Your task to perform on an android device: Open CNN.com Image 0: 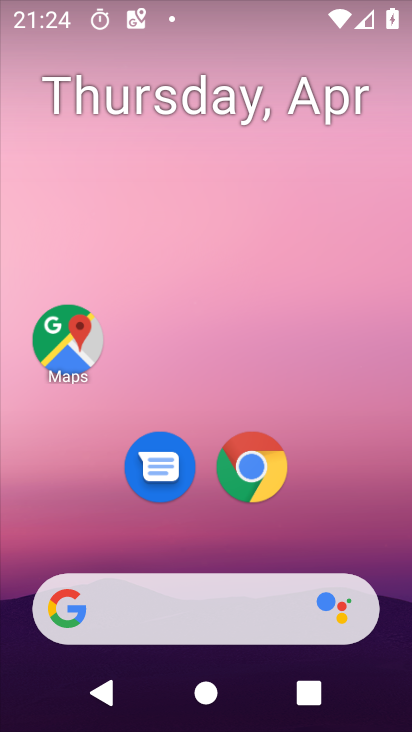
Step 0: drag from (198, 569) to (383, 395)
Your task to perform on an android device: Open CNN.com Image 1: 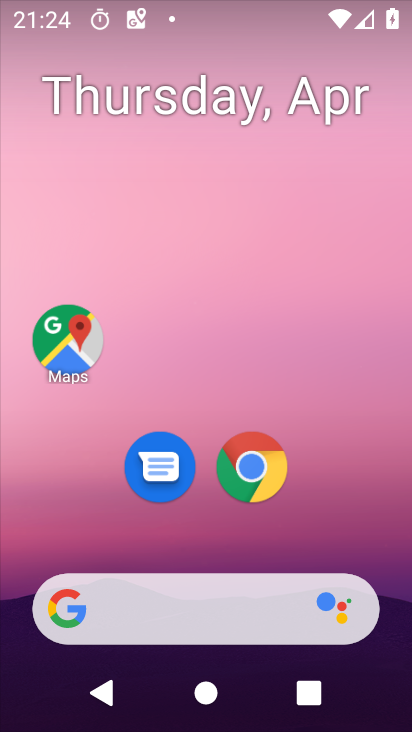
Step 1: drag from (260, 388) to (212, 6)
Your task to perform on an android device: Open CNN.com Image 2: 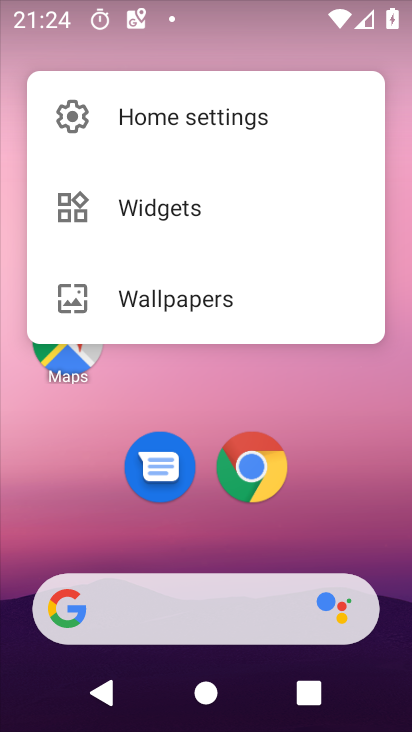
Step 2: click (186, 537)
Your task to perform on an android device: Open CNN.com Image 3: 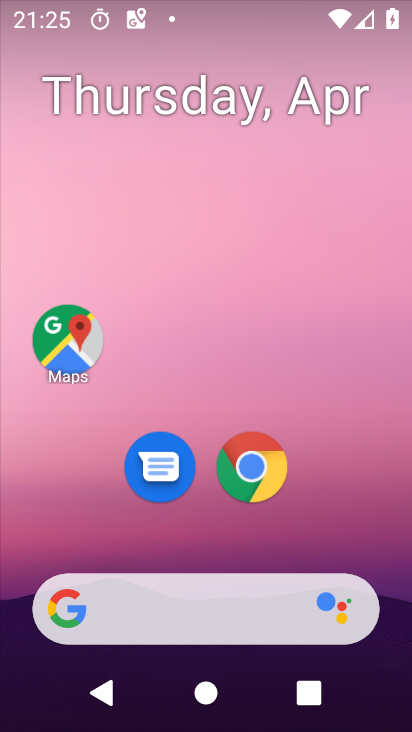
Step 3: drag from (213, 530) to (377, 586)
Your task to perform on an android device: Open CNN.com Image 4: 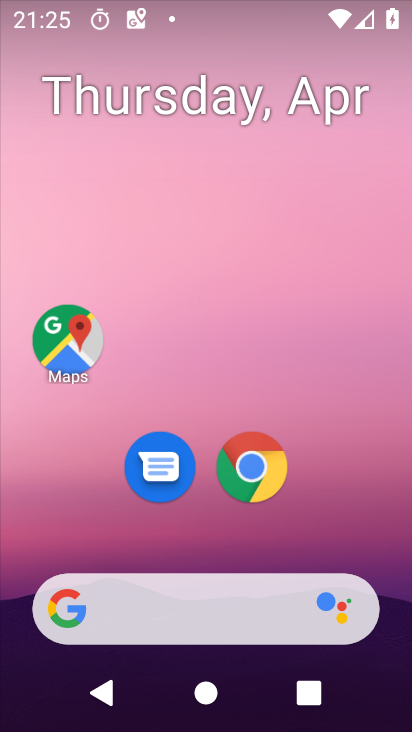
Step 4: click (263, 386)
Your task to perform on an android device: Open CNN.com Image 5: 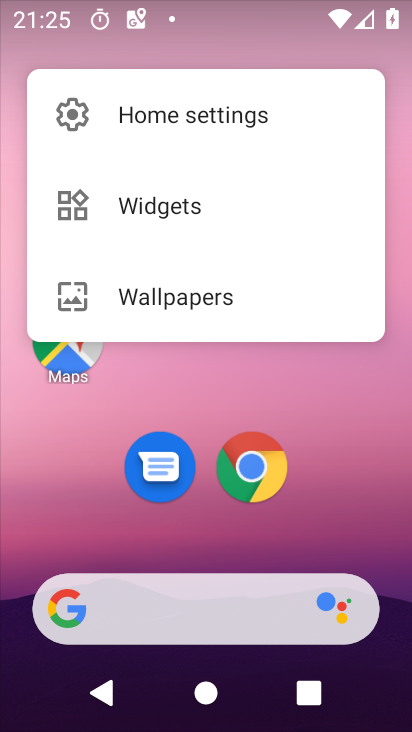
Step 5: drag from (249, 563) to (255, 22)
Your task to perform on an android device: Open CNN.com Image 6: 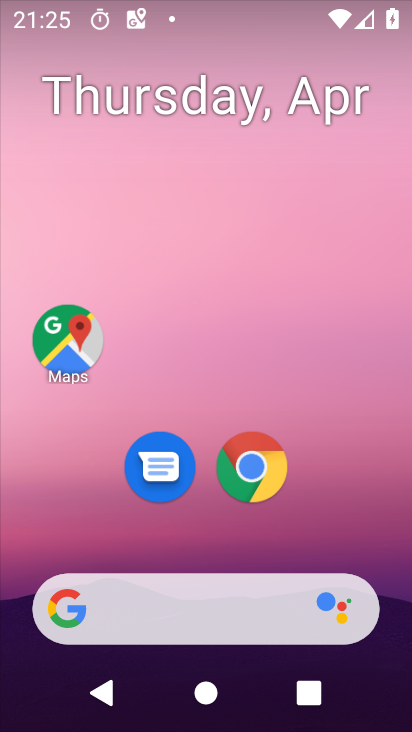
Step 6: drag from (197, 495) to (354, 49)
Your task to perform on an android device: Open CNN.com Image 7: 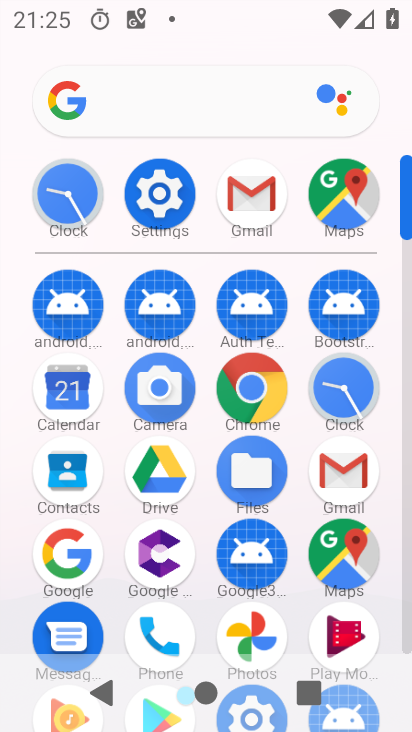
Step 7: click (246, 397)
Your task to perform on an android device: Open CNN.com Image 8: 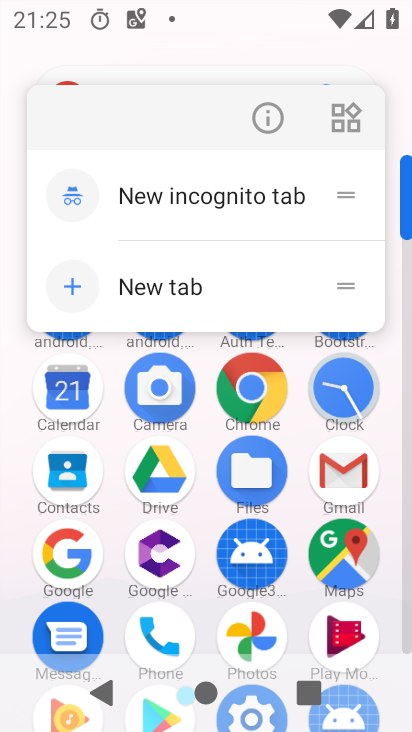
Step 8: click (258, 386)
Your task to perform on an android device: Open CNN.com Image 9: 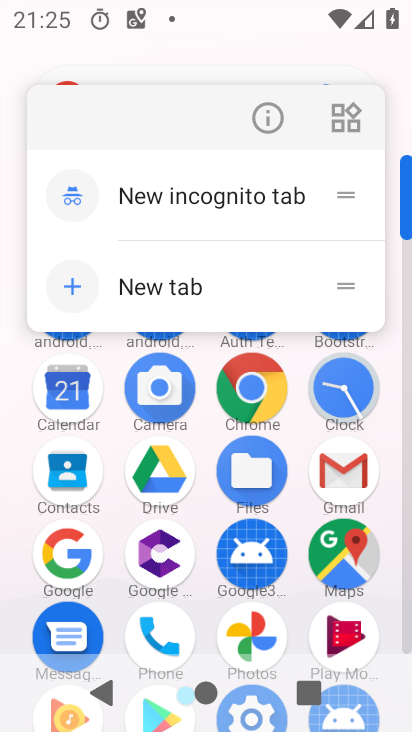
Step 9: click (259, 385)
Your task to perform on an android device: Open CNN.com Image 10: 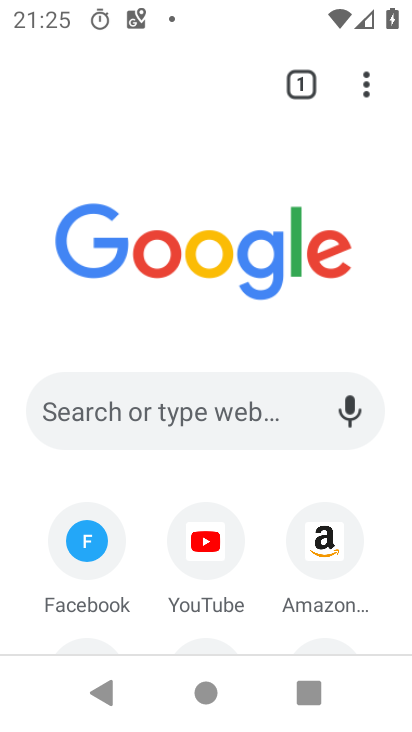
Step 10: click (215, 433)
Your task to perform on an android device: Open CNN.com Image 11: 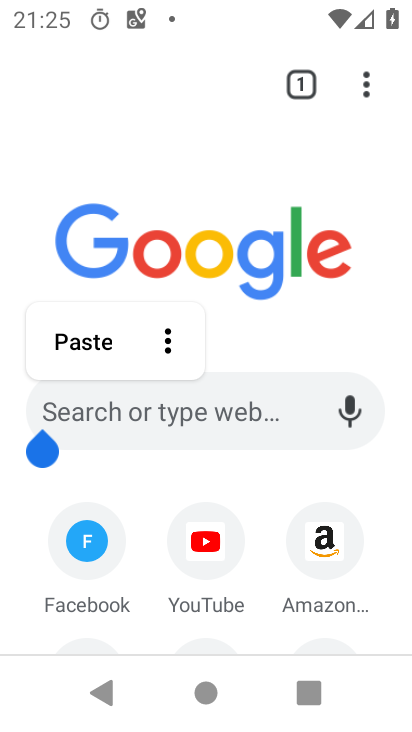
Step 11: click (138, 411)
Your task to perform on an android device: Open CNN.com Image 12: 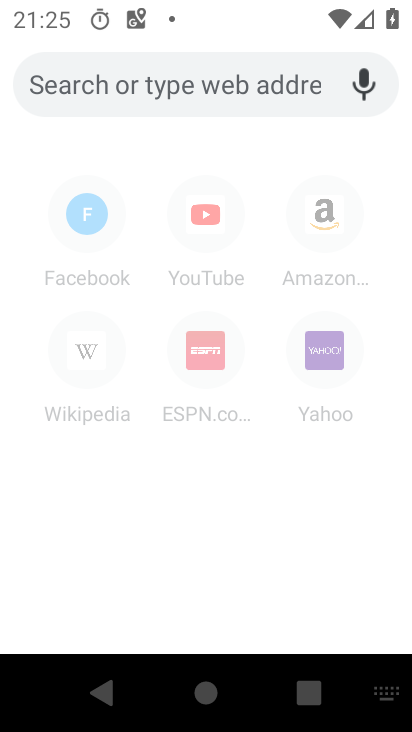
Step 12: type "cnn,com"
Your task to perform on an android device: Open CNN.com Image 13: 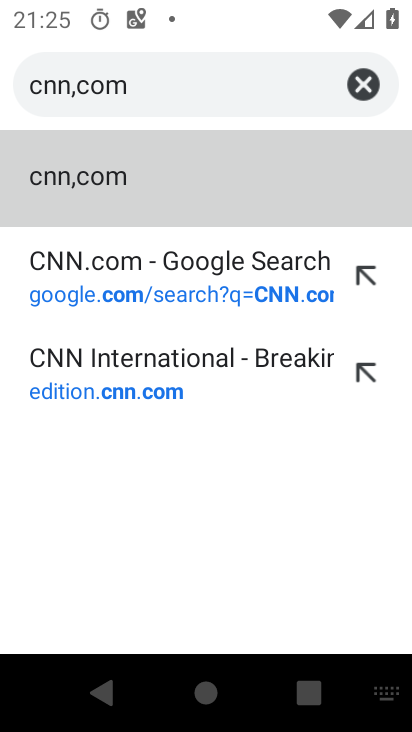
Step 13: drag from (67, 193) to (85, 283)
Your task to perform on an android device: Open CNN.com Image 14: 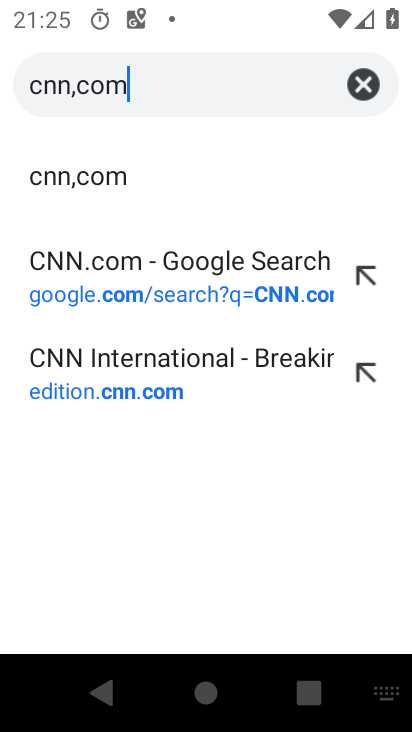
Step 14: click (175, 287)
Your task to perform on an android device: Open CNN.com Image 15: 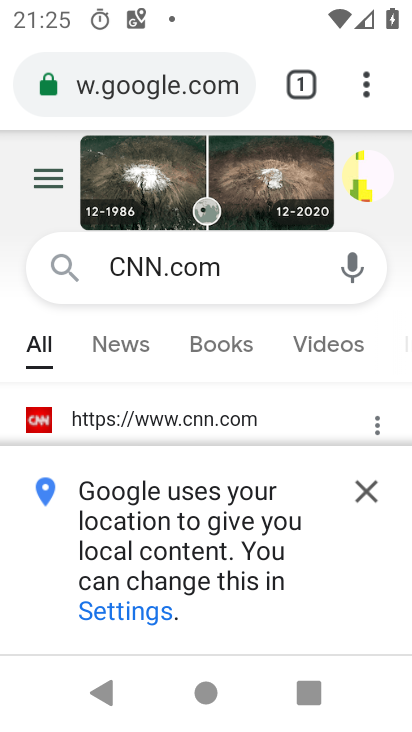
Step 15: click (357, 477)
Your task to perform on an android device: Open CNN.com Image 16: 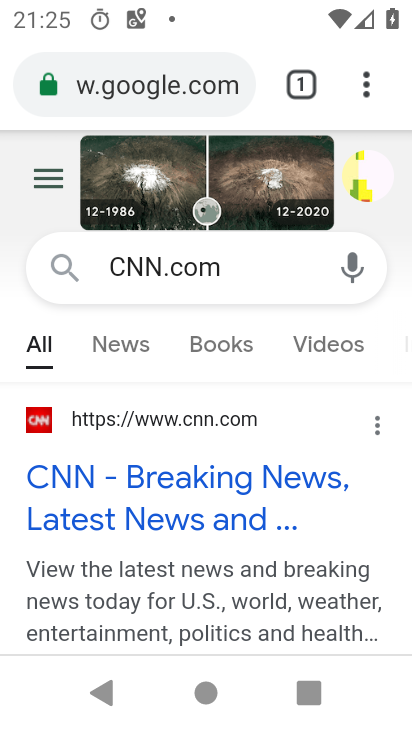
Step 16: click (85, 488)
Your task to perform on an android device: Open CNN.com Image 17: 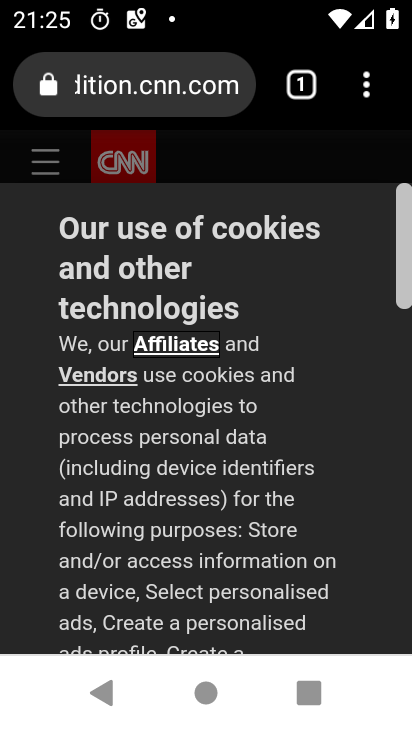
Step 17: task complete